Your task to perform on an android device: find snoozed emails in the gmail app Image 0: 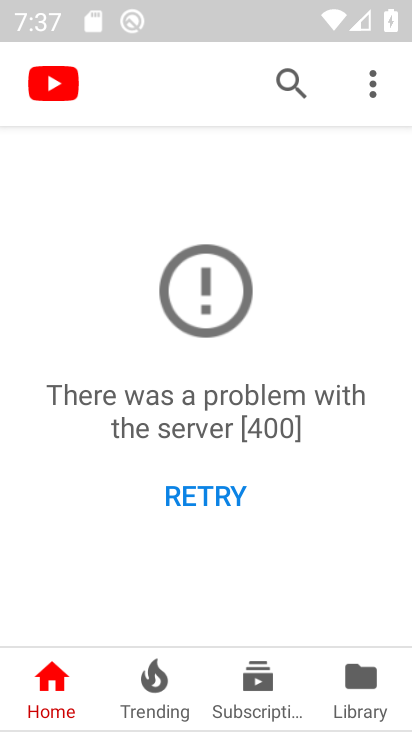
Step 0: press home button
Your task to perform on an android device: find snoozed emails in the gmail app Image 1: 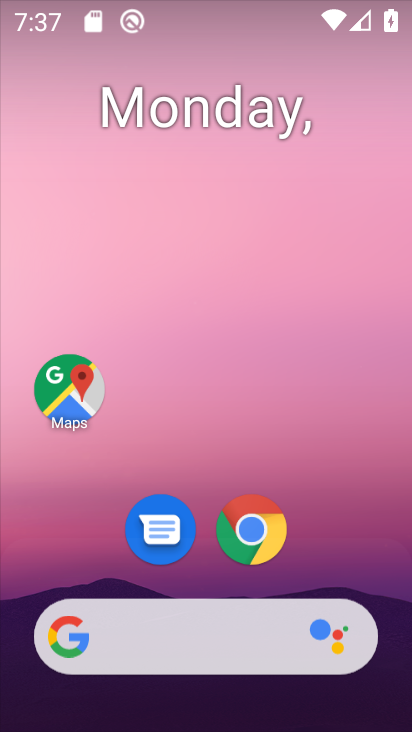
Step 1: drag from (195, 510) to (141, 136)
Your task to perform on an android device: find snoozed emails in the gmail app Image 2: 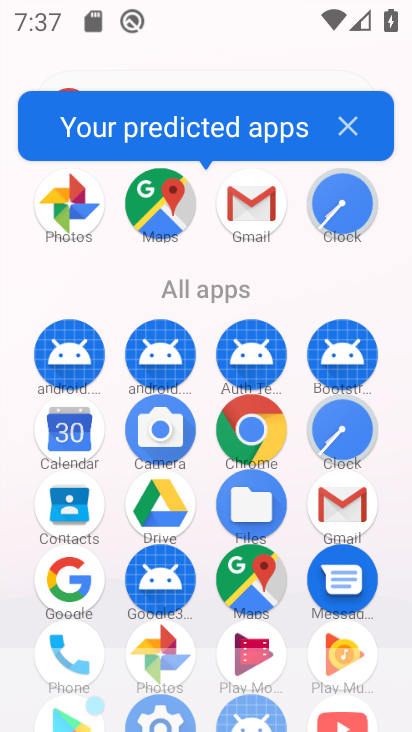
Step 2: click (257, 202)
Your task to perform on an android device: find snoozed emails in the gmail app Image 3: 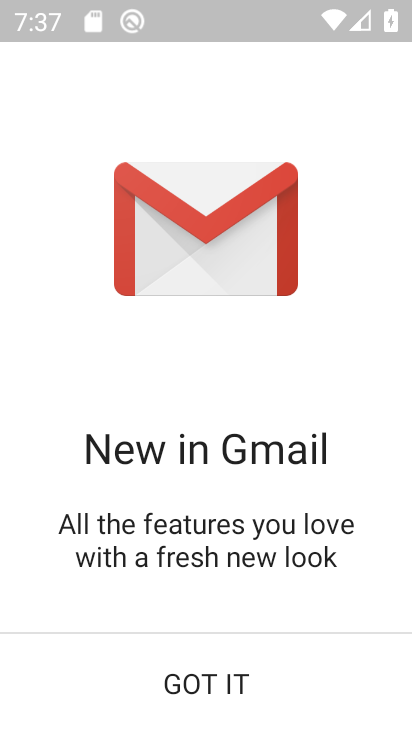
Step 3: click (180, 674)
Your task to perform on an android device: find snoozed emails in the gmail app Image 4: 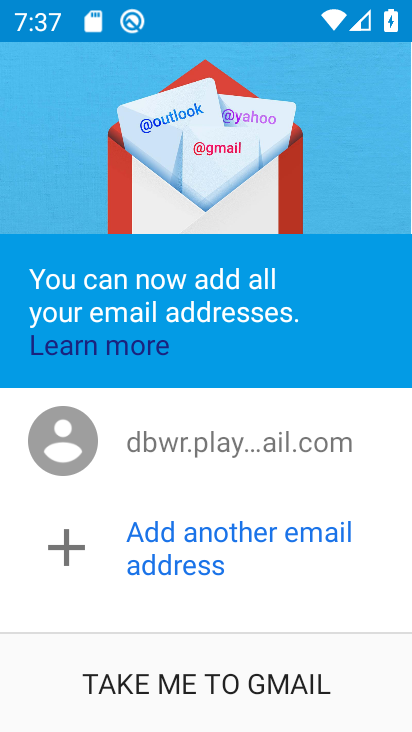
Step 4: click (180, 674)
Your task to perform on an android device: find snoozed emails in the gmail app Image 5: 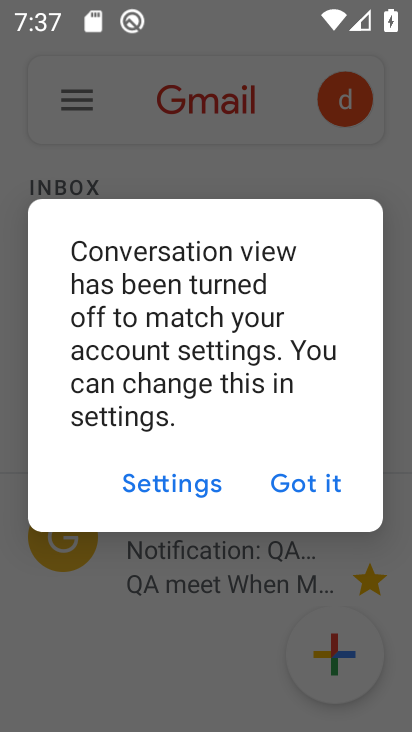
Step 5: click (317, 485)
Your task to perform on an android device: find snoozed emails in the gmail app Image 6: 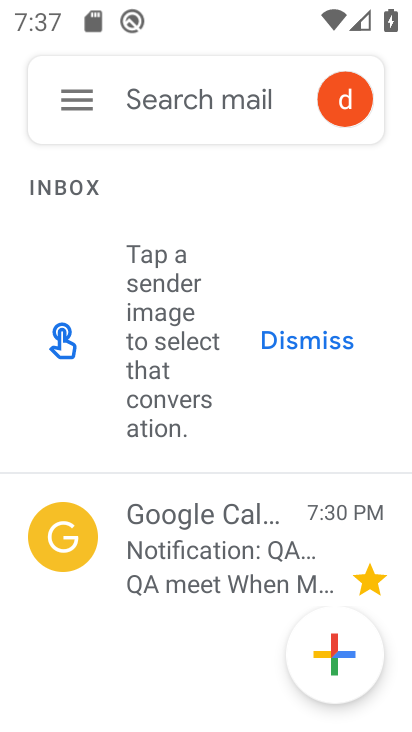
Step 6: click (77, 94)
Your task to perform on an android device: find snoozed emails in the gmail app Image 7: 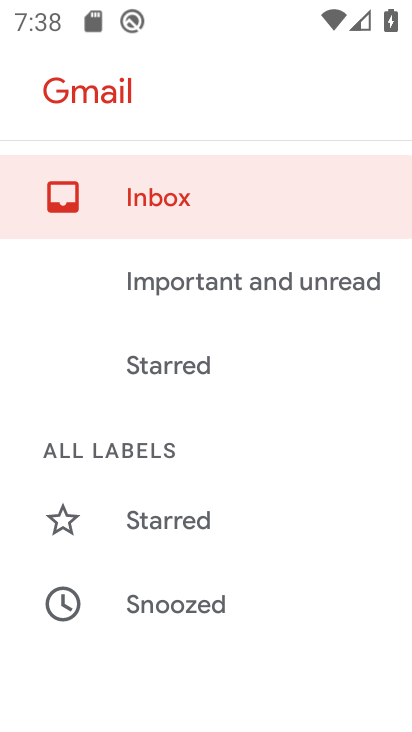
Step 7: click (178, 566)
Your task to perform on an android device: find snoozed emails in the gmail app Image 8: 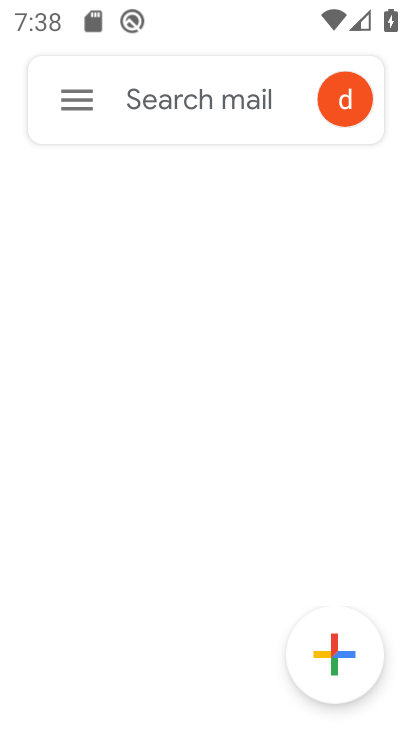
Step 8: click (160, 613)
Your task to perform on an android device: find snoozed emails in the gmail app Image 9: 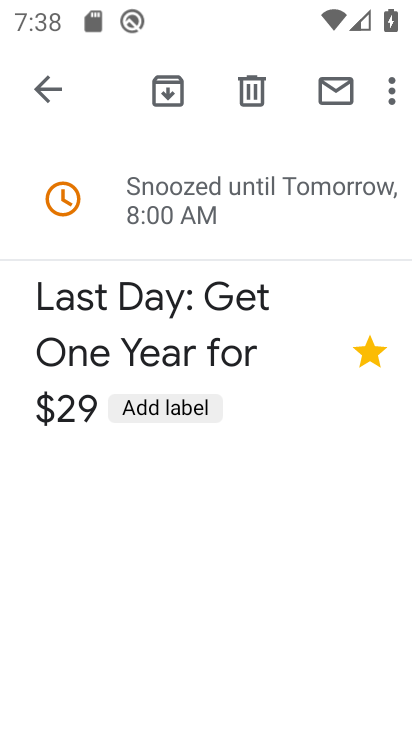
Step 9: click (52, 93)
Your task to perform on an android device: find snoozed emails in the gmail app Image 10: 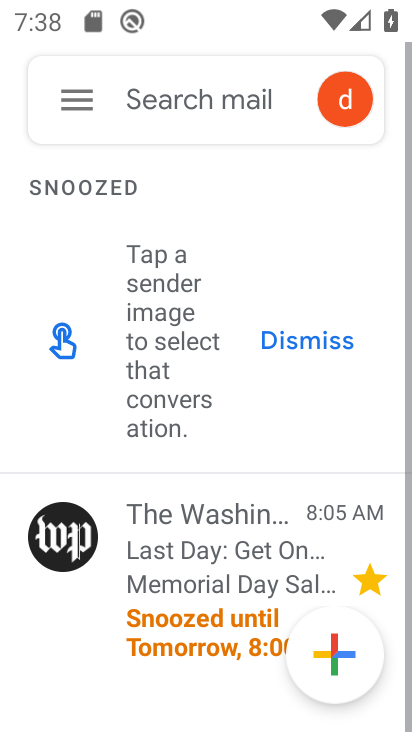
Step 10: task complete